Your task to perform on an android device: turn on wifi Image 0: 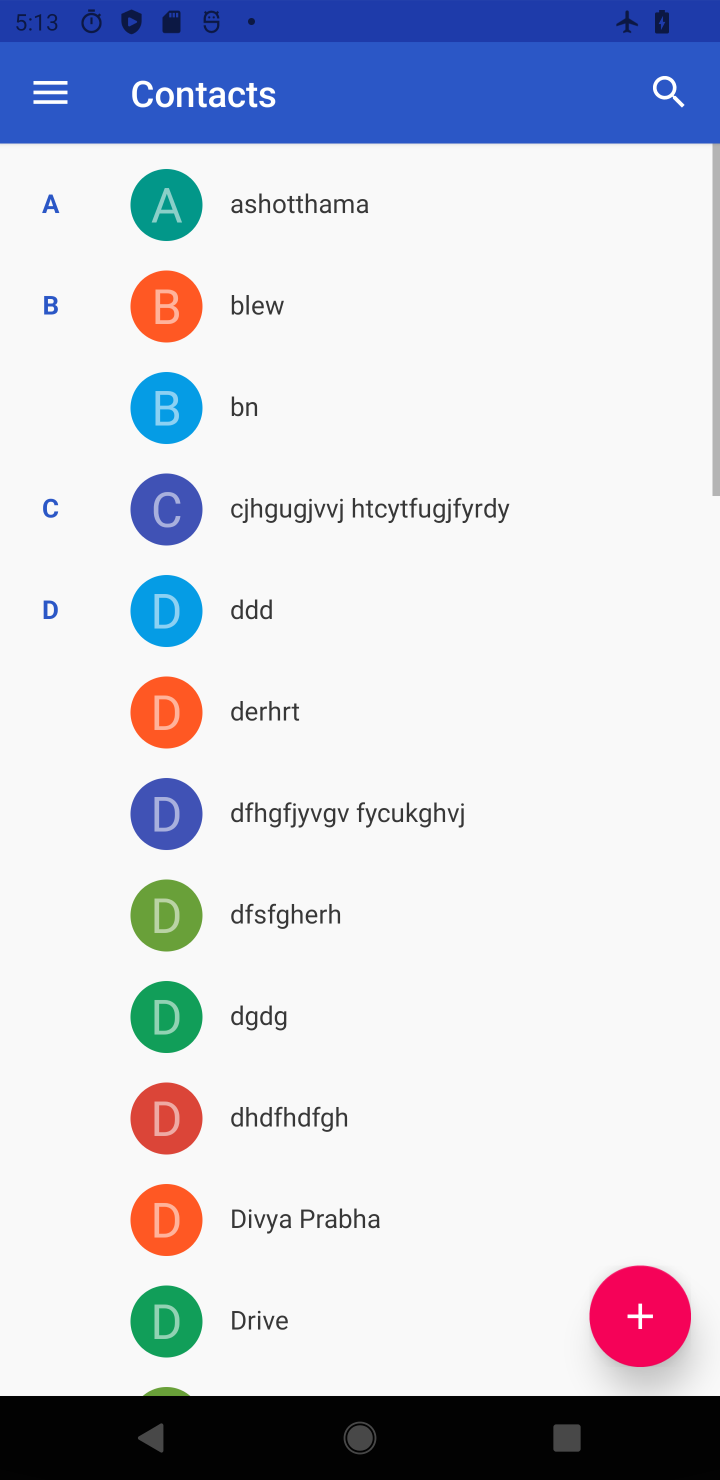
Step 0: press back button
Your task to perform on an android device: turn on wifi Image 1: 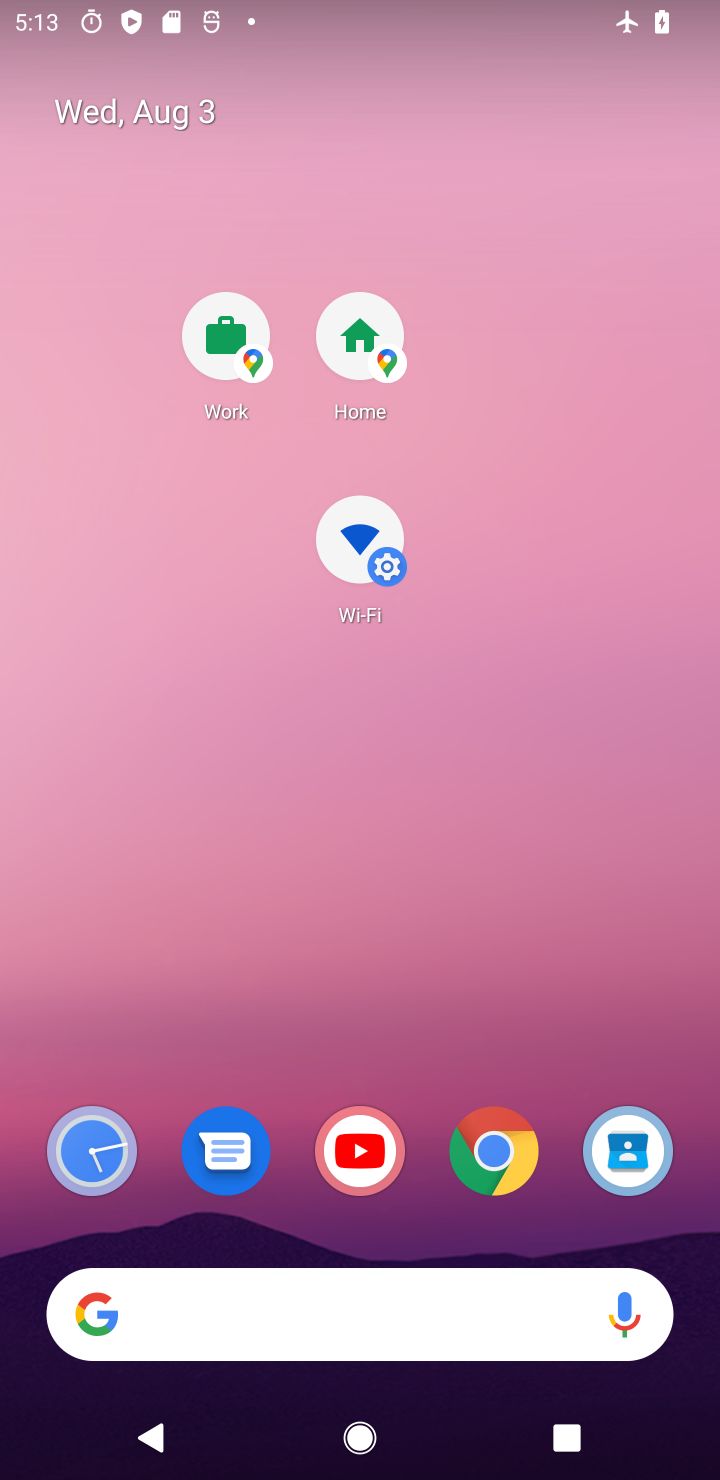
Step 1: drag from (421, 1236) to (162, 320)
Your task to perform on an android device: turn on wifi Image 2: 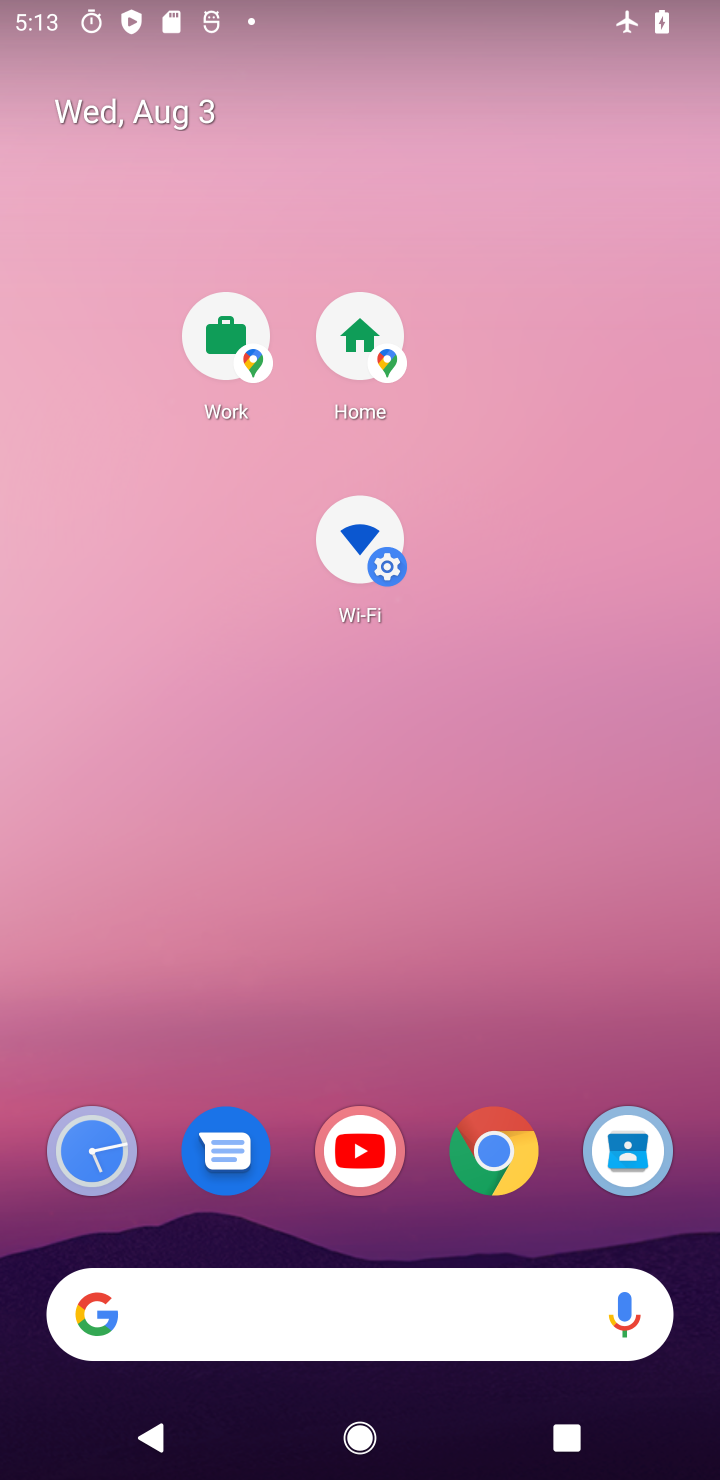
Step 2: drag from (336, 428) to (319, 322)
Your task to perform on an android device: turn on wifi Image 3: 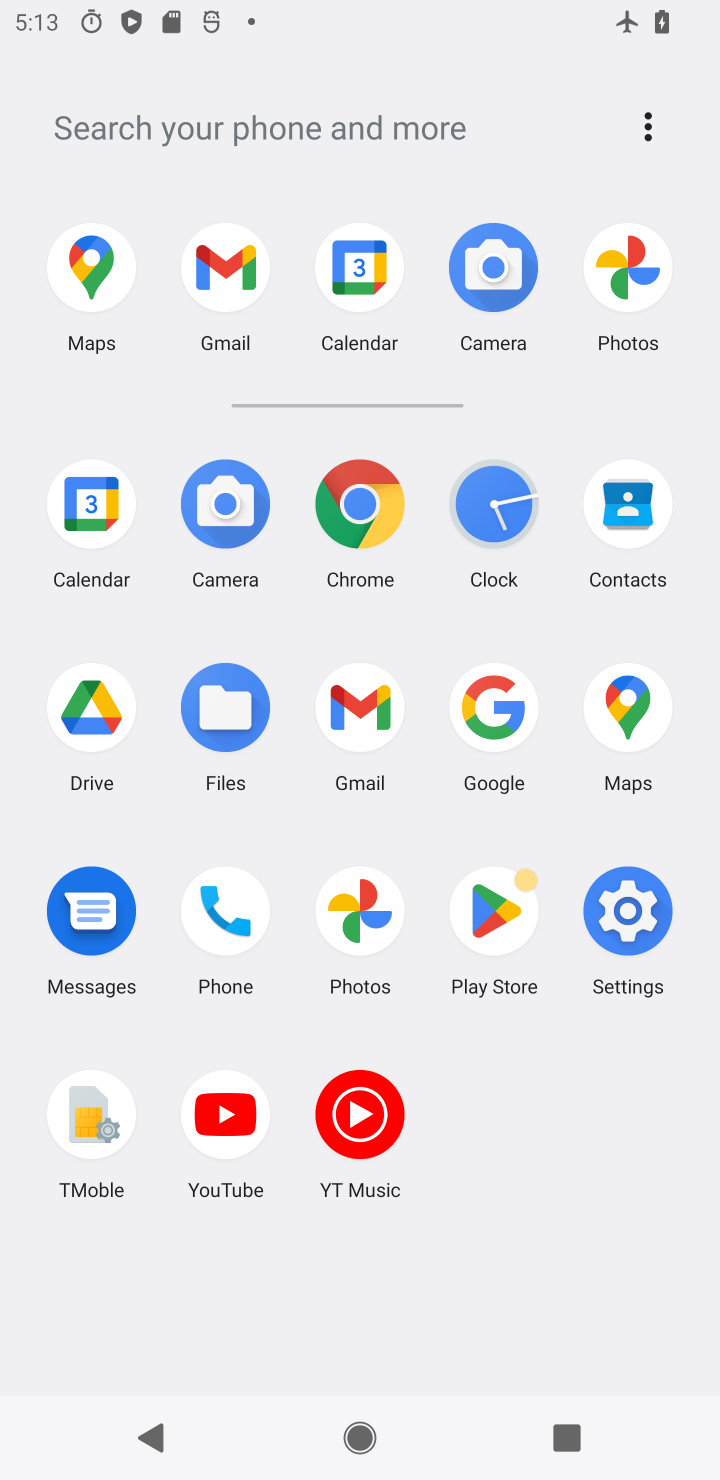
Step 3: click (592, 914)
Your task to perform on an android device: turn on wifi Image 4: 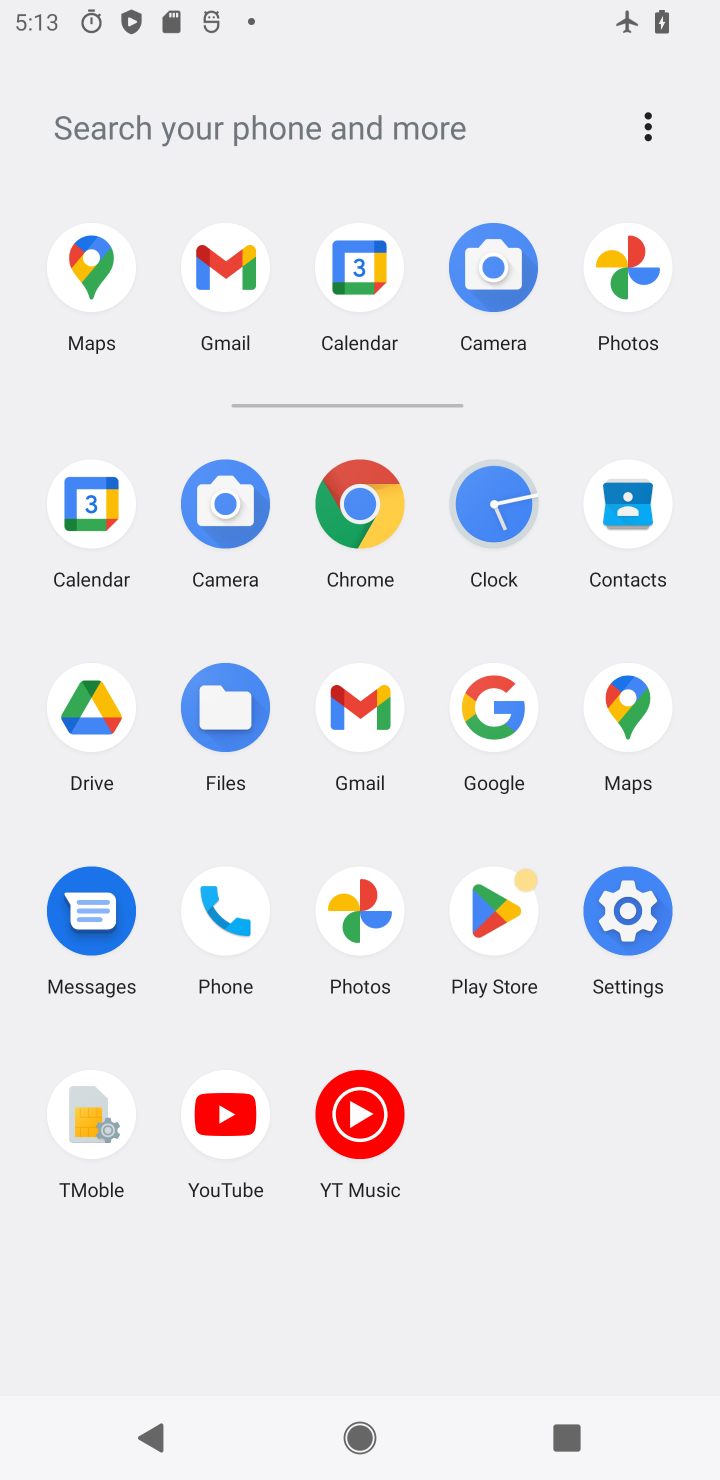
Step 4: click (612, 933)
Your task to perform on an android device: turn on wifi Image 5: 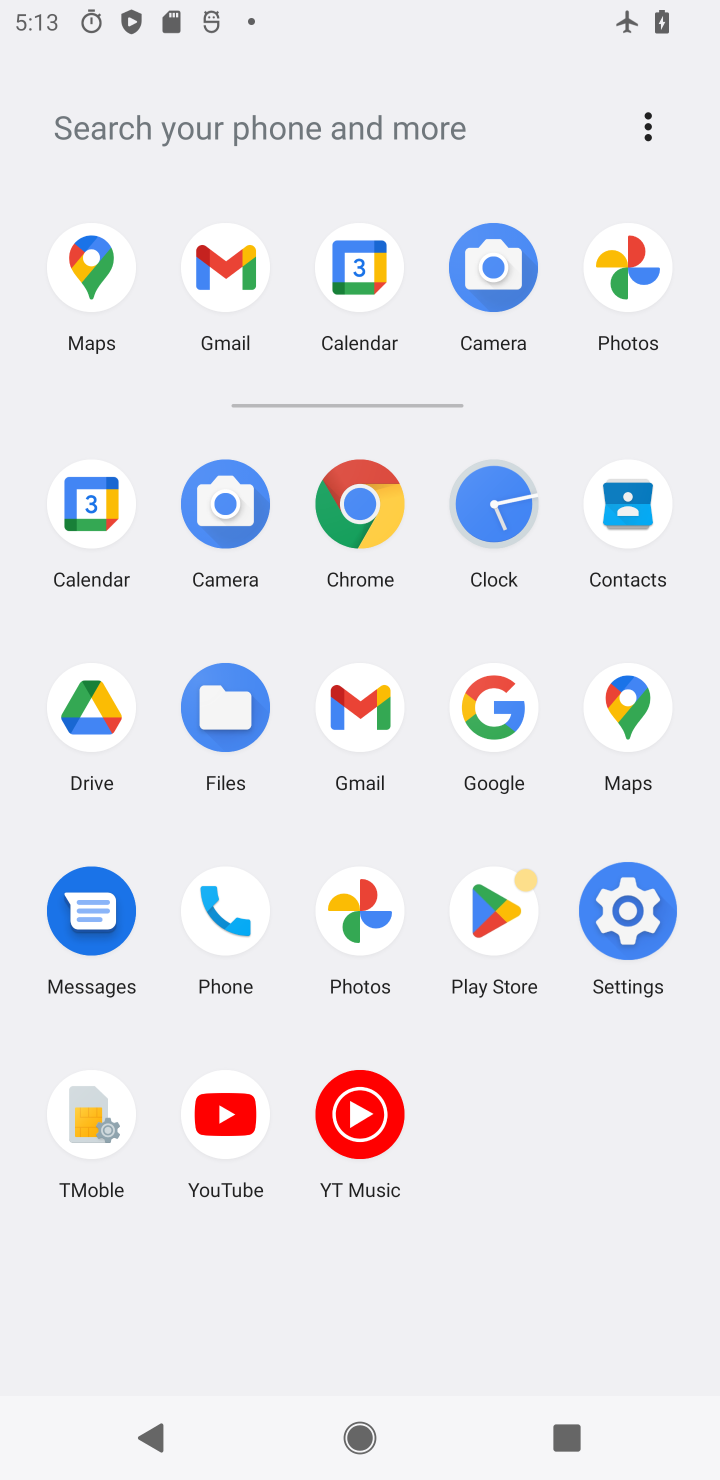
Step 5: click (620, 929)
Your task to perform on an android device: turn on wifi Image 6: 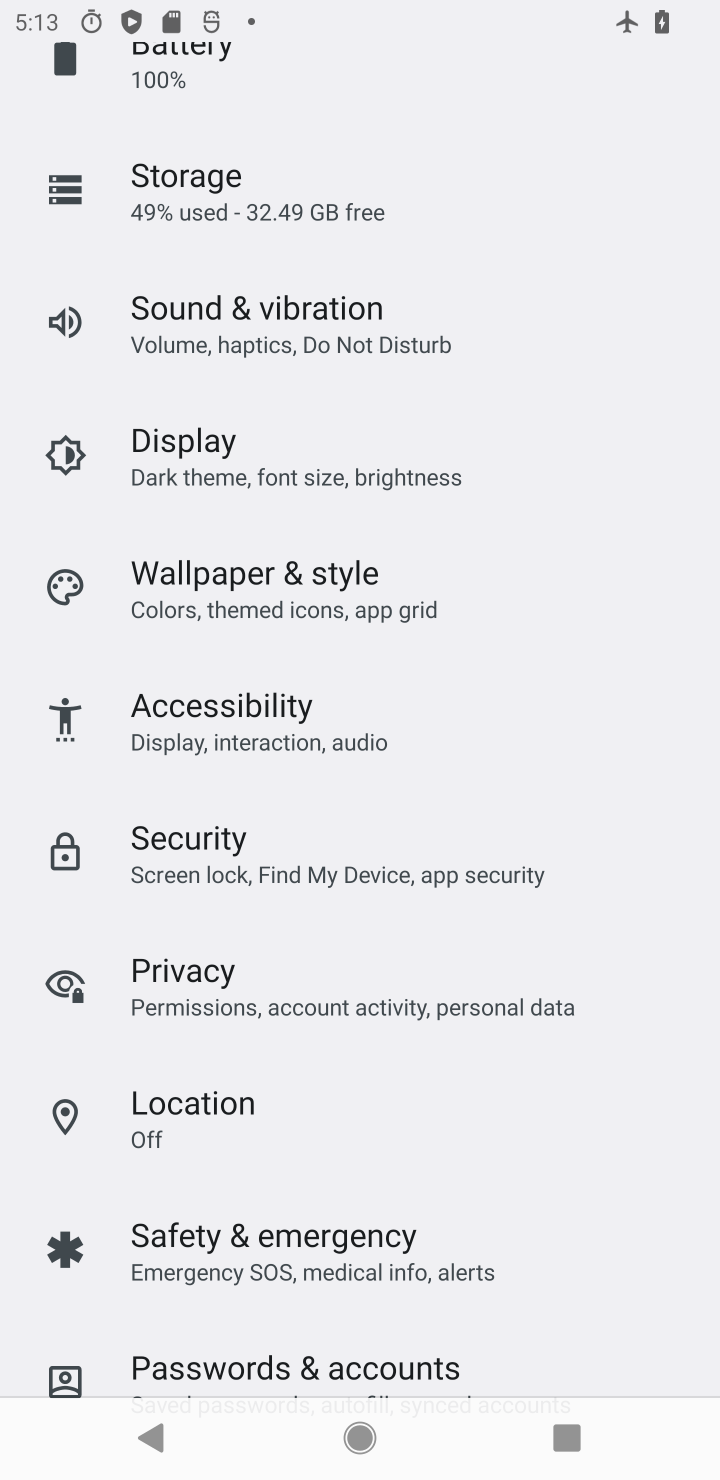
Step 6: drag from (282, 220) to (285, 1029)
Your task to perform on an android device: turn on wifi Image 7: 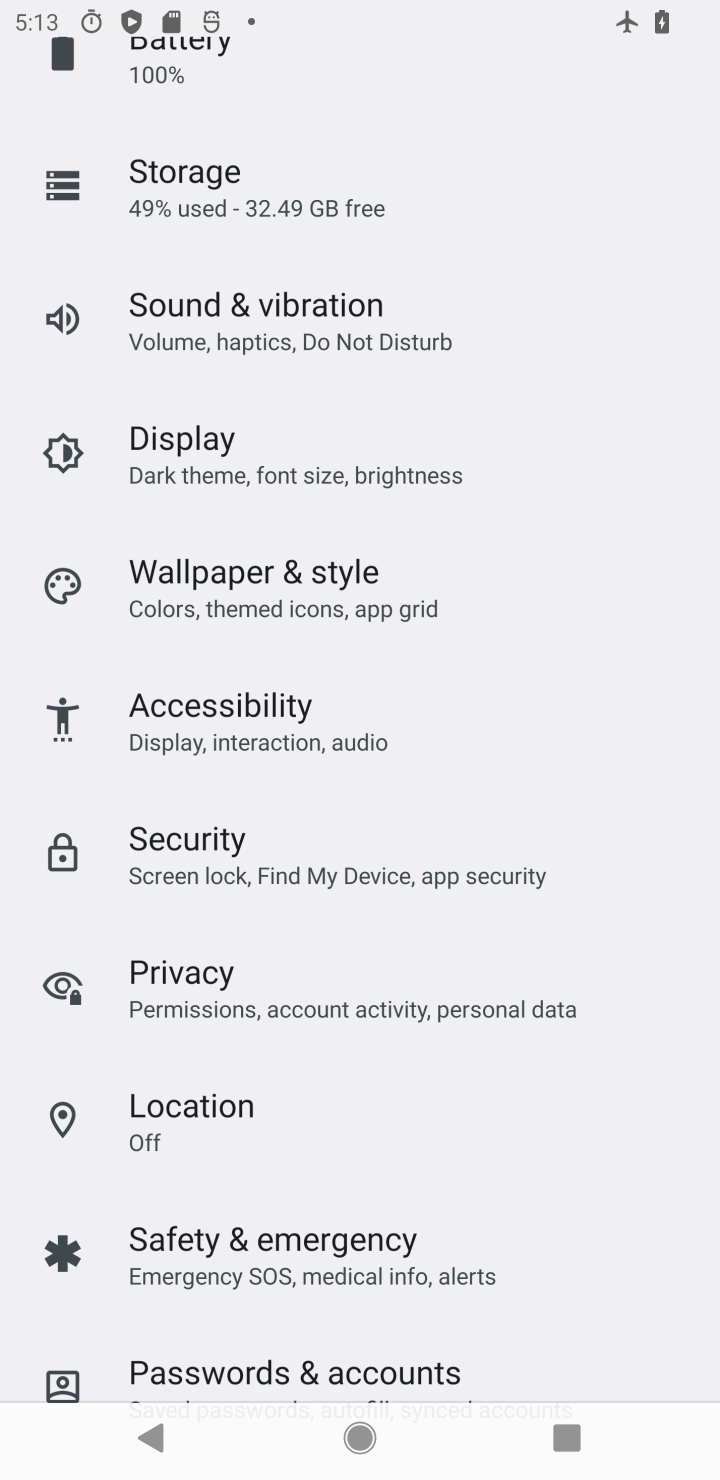
Step 7: drag from (363, 1055) to (400, 1215)
Your task to perform on an android device: turn on wifi Image 8: 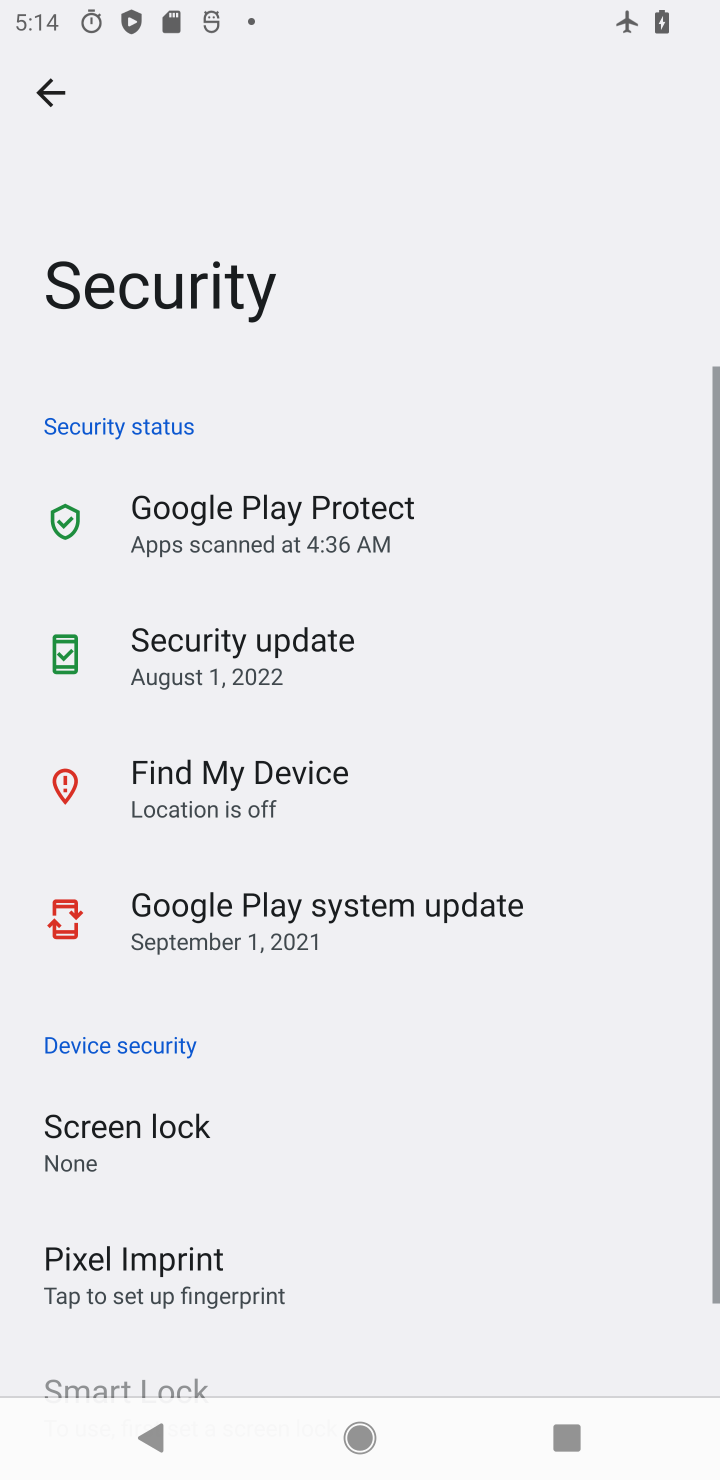
Step 8: click (432, 913)
Your task to perform on an android device: turn on wifi Image 9: 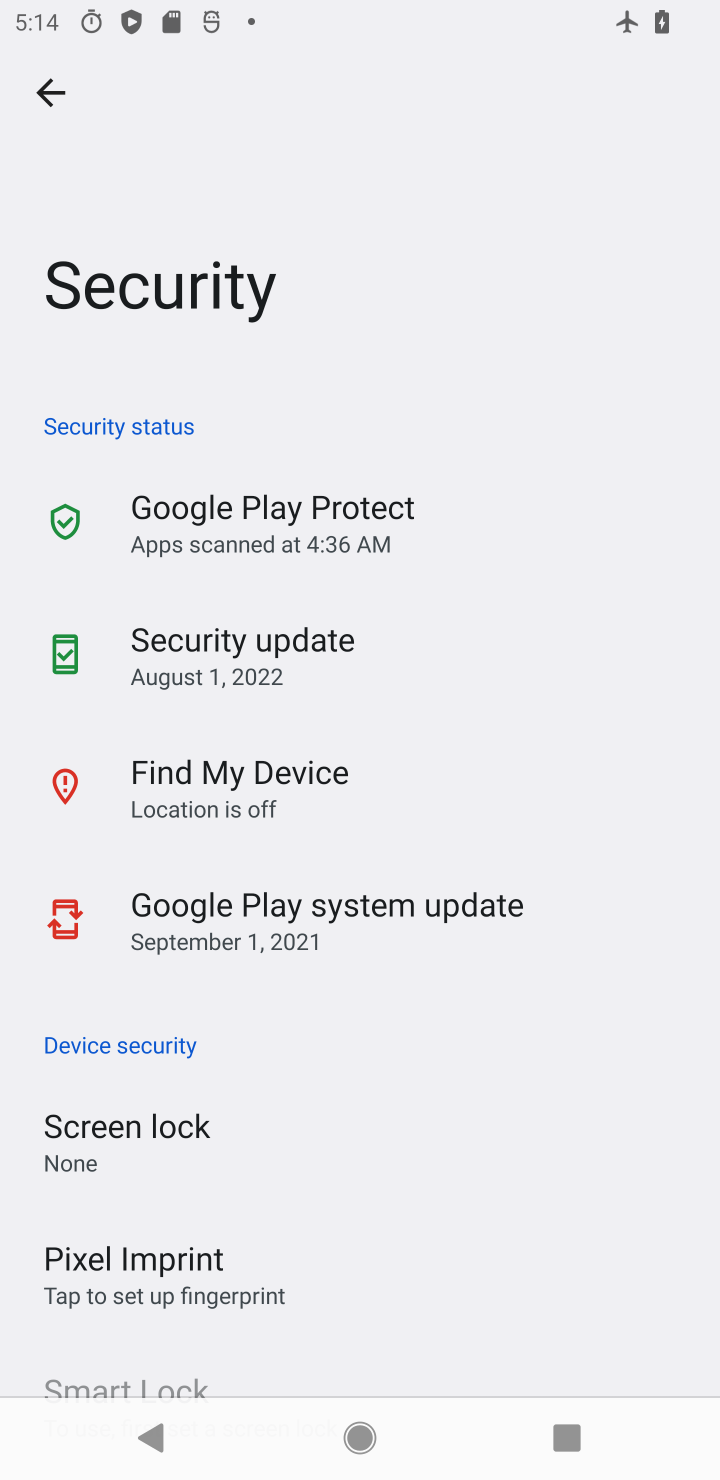
Step 9: click (46, 91)
Your task to perform on an android device: turn on wifi Image 10: 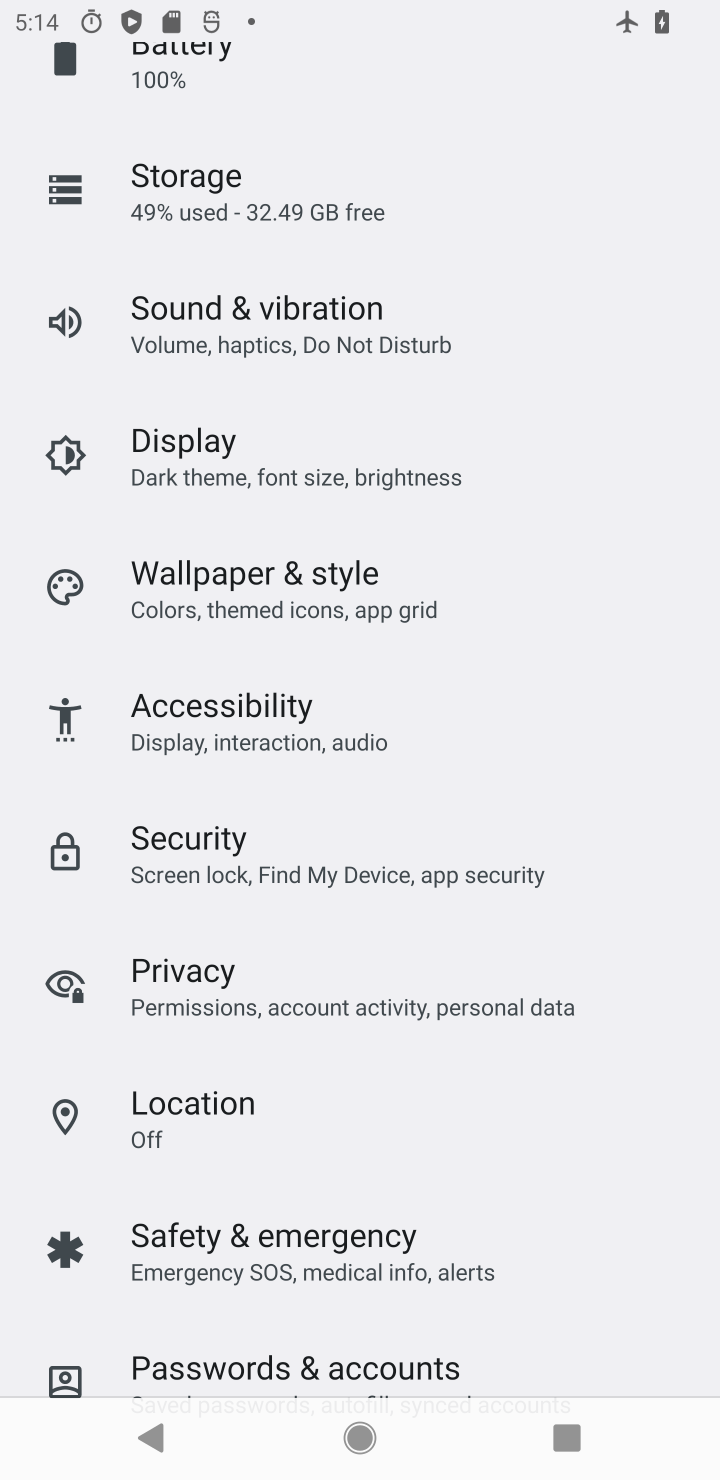
Step 10: drag from (170, 317) to (456, 1076)
Your task to perform on an android device: turn on wifi Image 11: 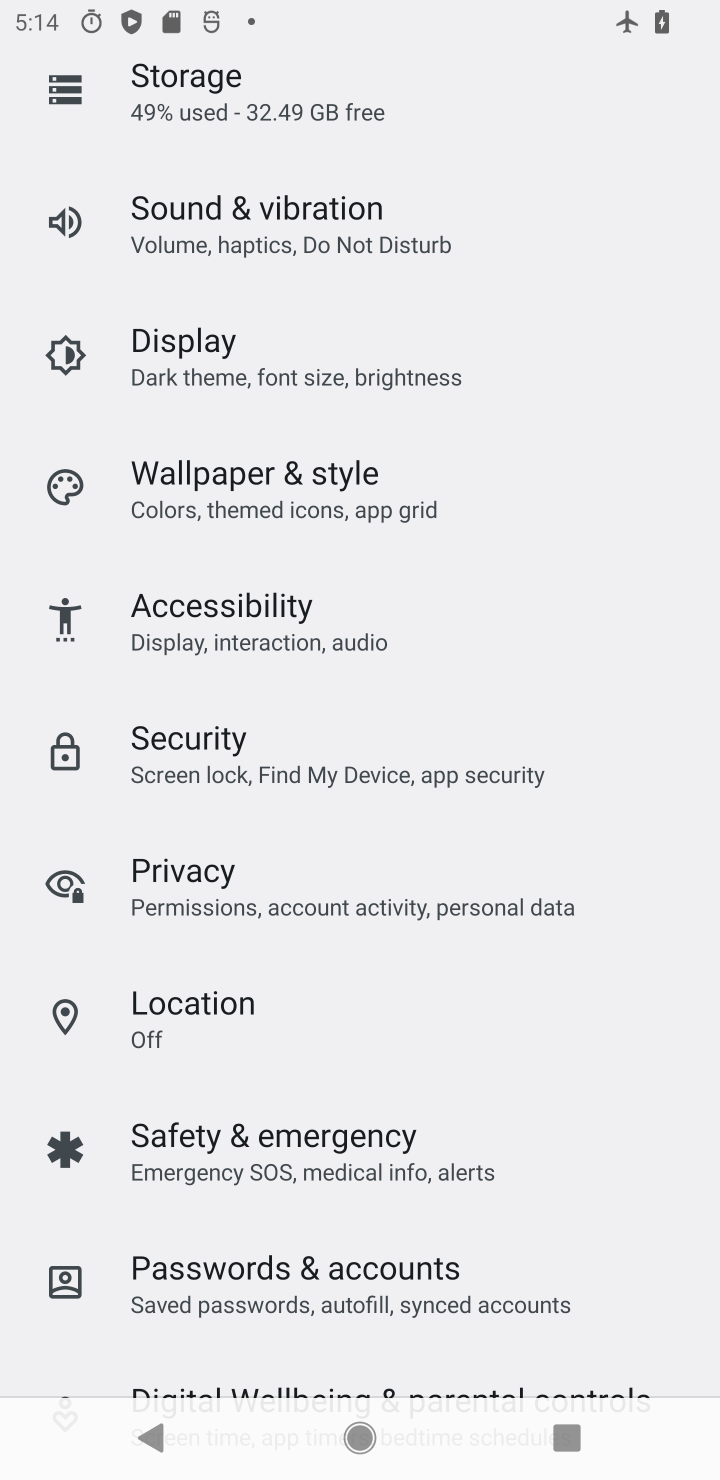
Step 11: drag from (278, 582) to (326, 1116)
Your task to perform on an android device: turn on wifi Image 12: 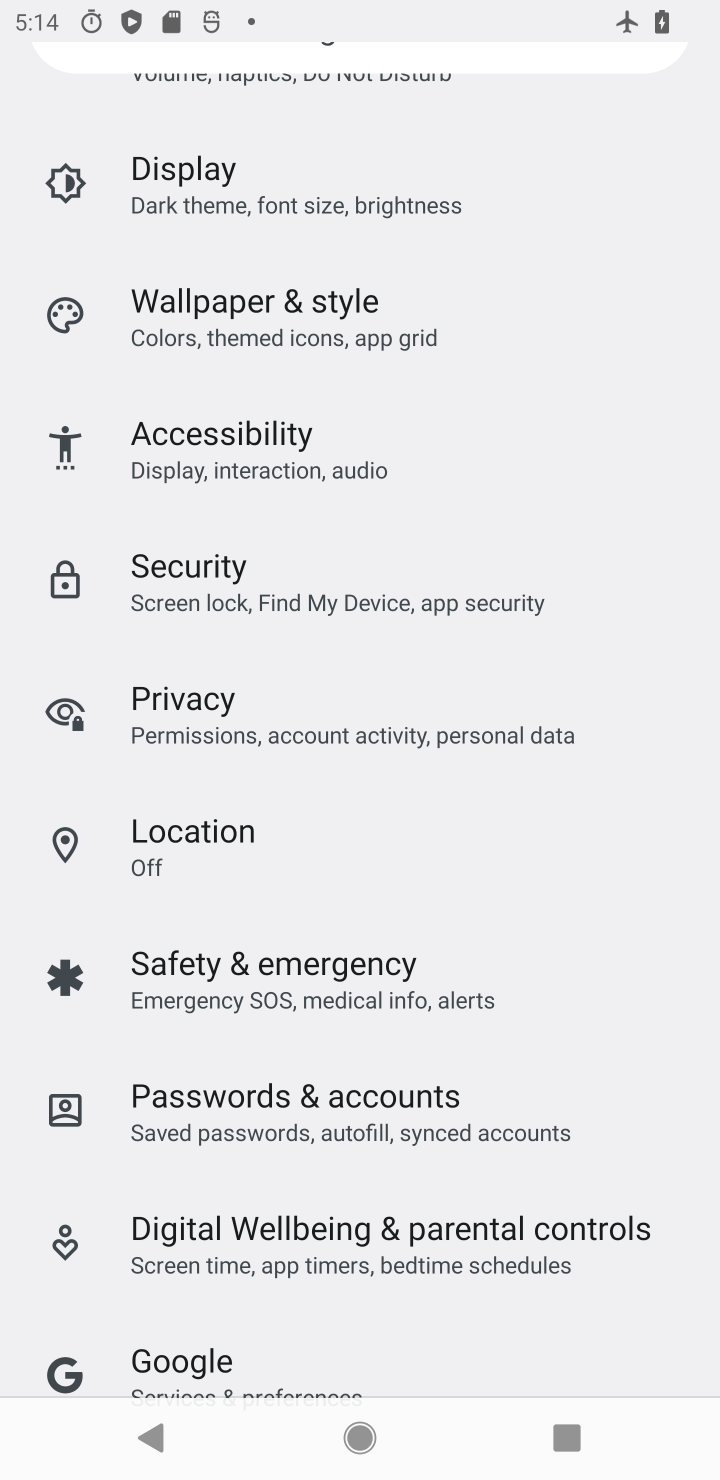
Step 12: drag from (224, 791) to (262, 1133)
Your task to perform on an android device: turn on wifi Image 13: 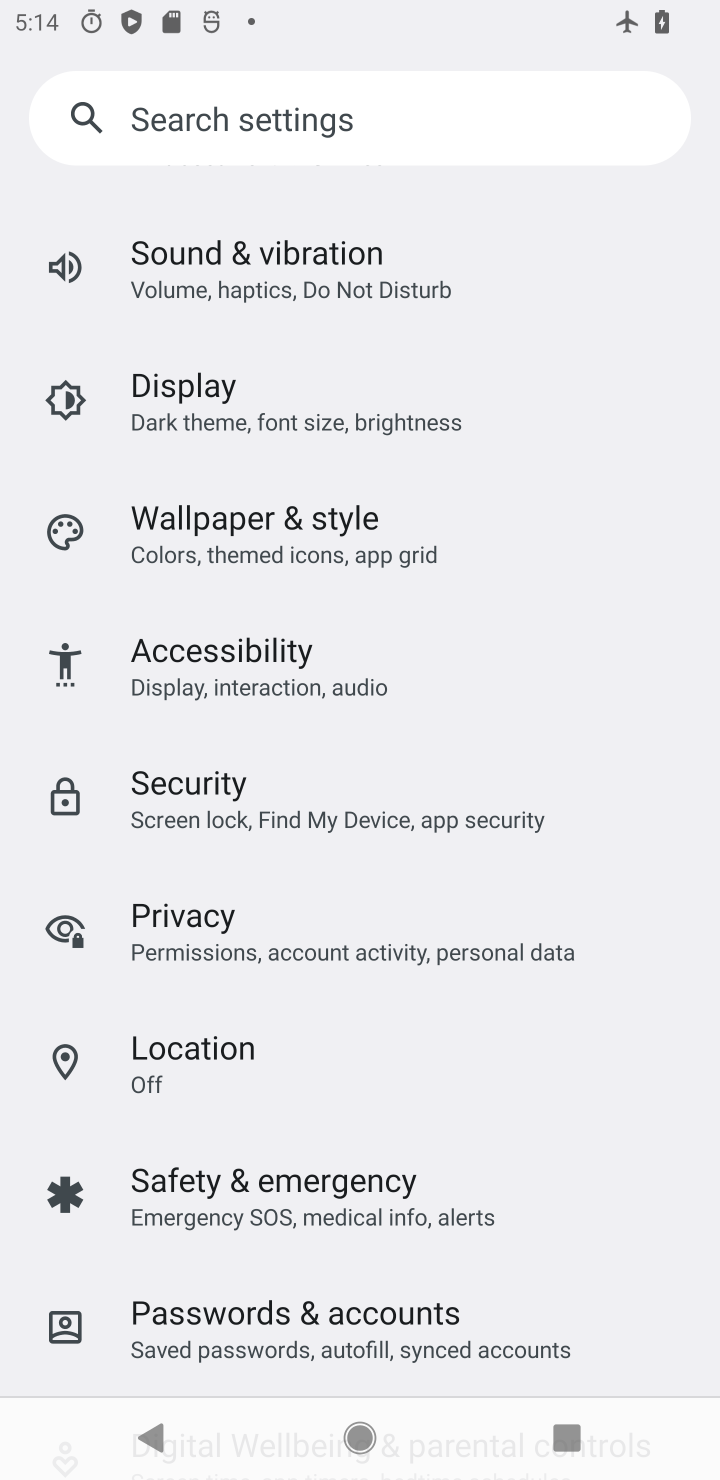
Step 13: click (309, 1093)
Your task to perform on an android device: turn on wifi Image 14: 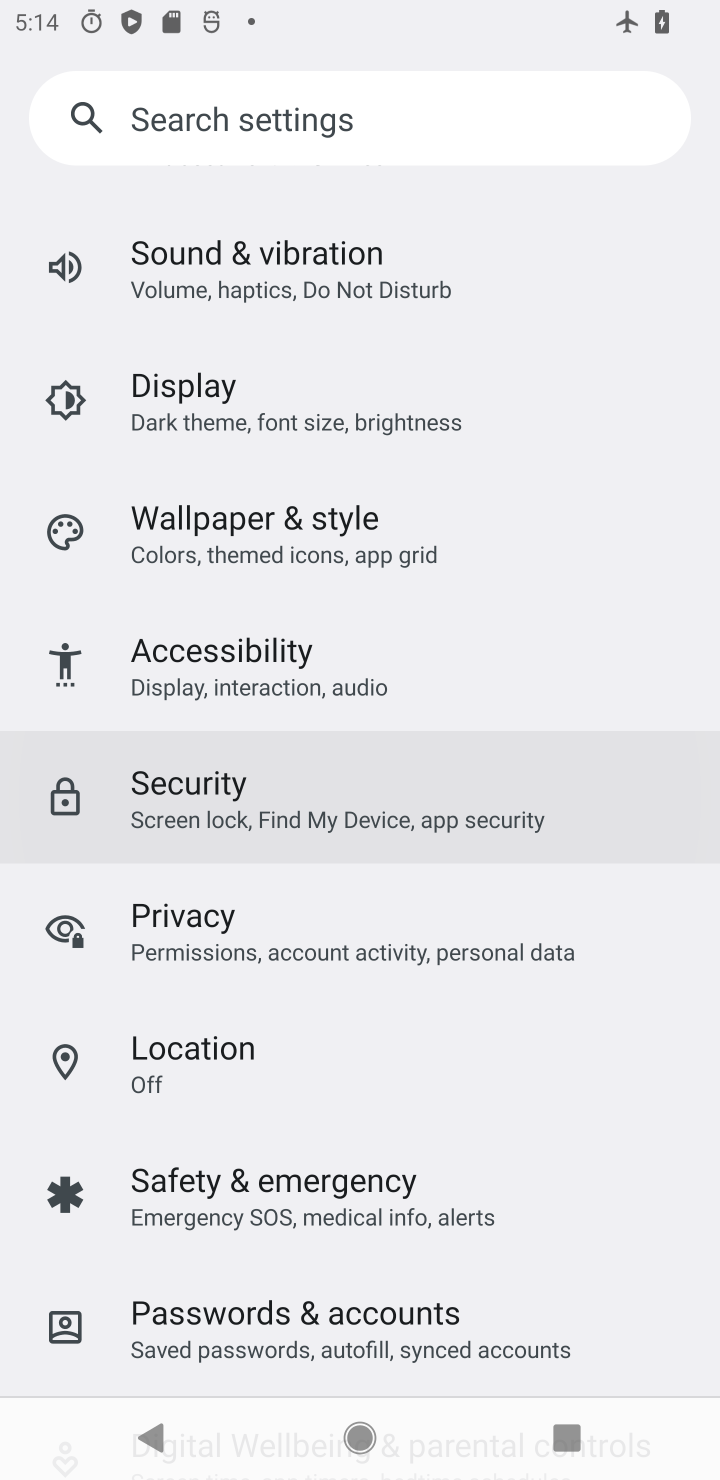
Step 14: click (371, 1054)
Your task to perform on an android device: turn on wifi Image 15: 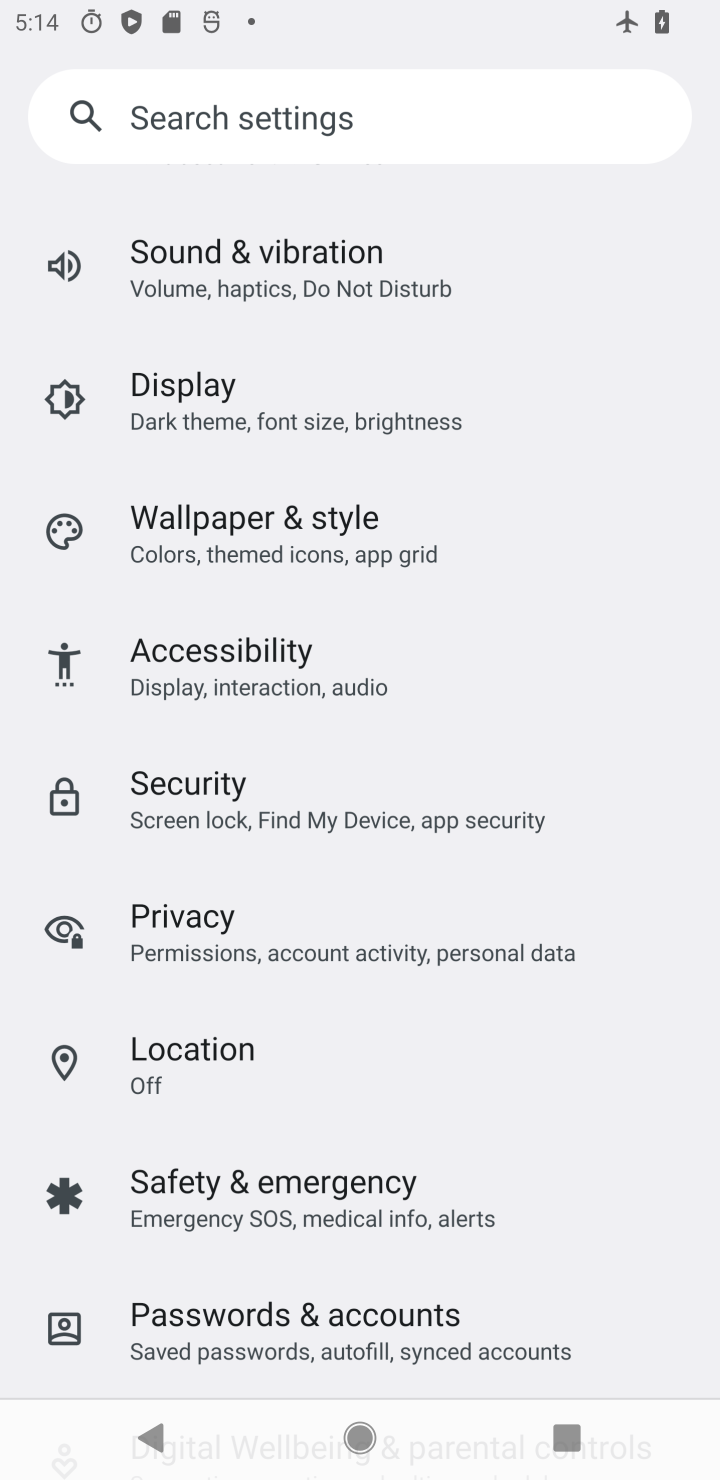
Step 15: drag from (274, 316) to (341, 1084)
Your task to perform on an android device: turn on wifi Image 16: 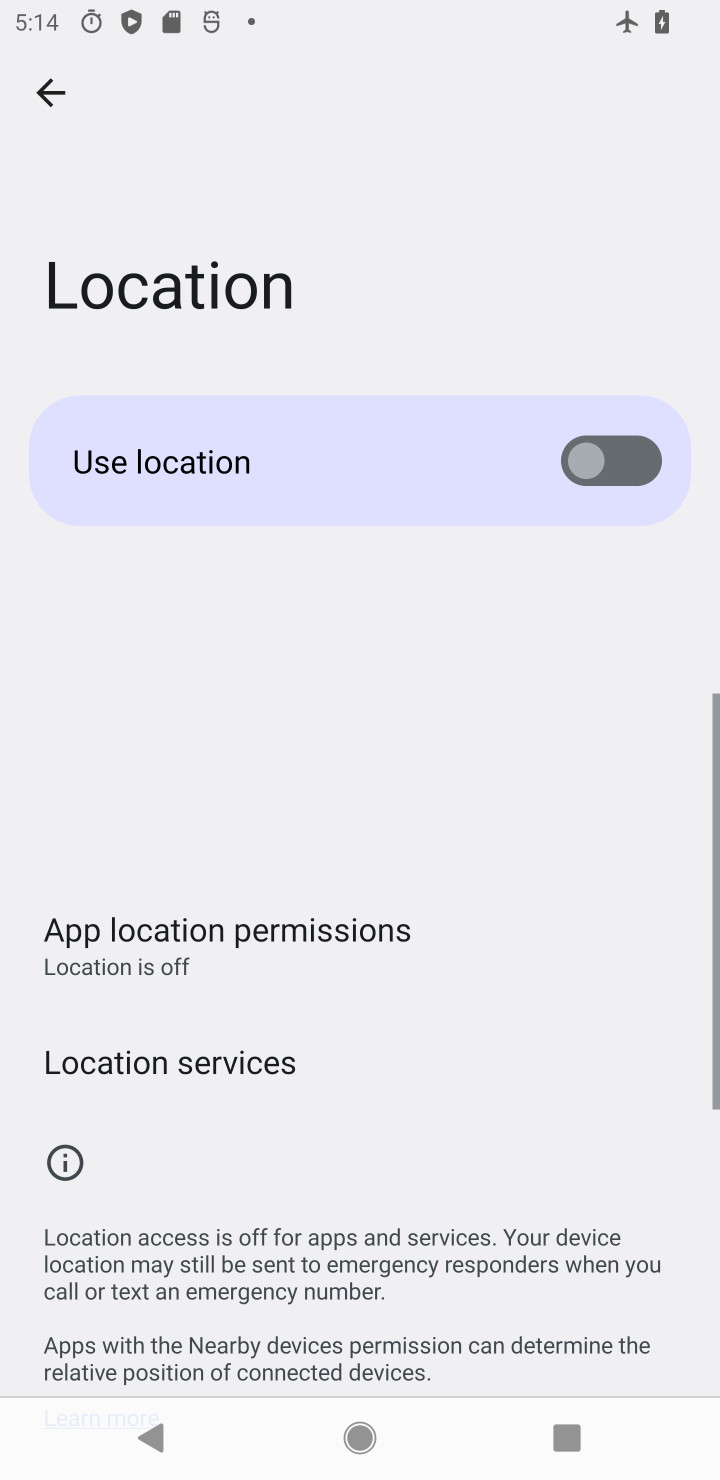
Step 16: drag from (280, 409) to (374, 1045)
Your task to perform on an android device: turn on wifi Image 17: 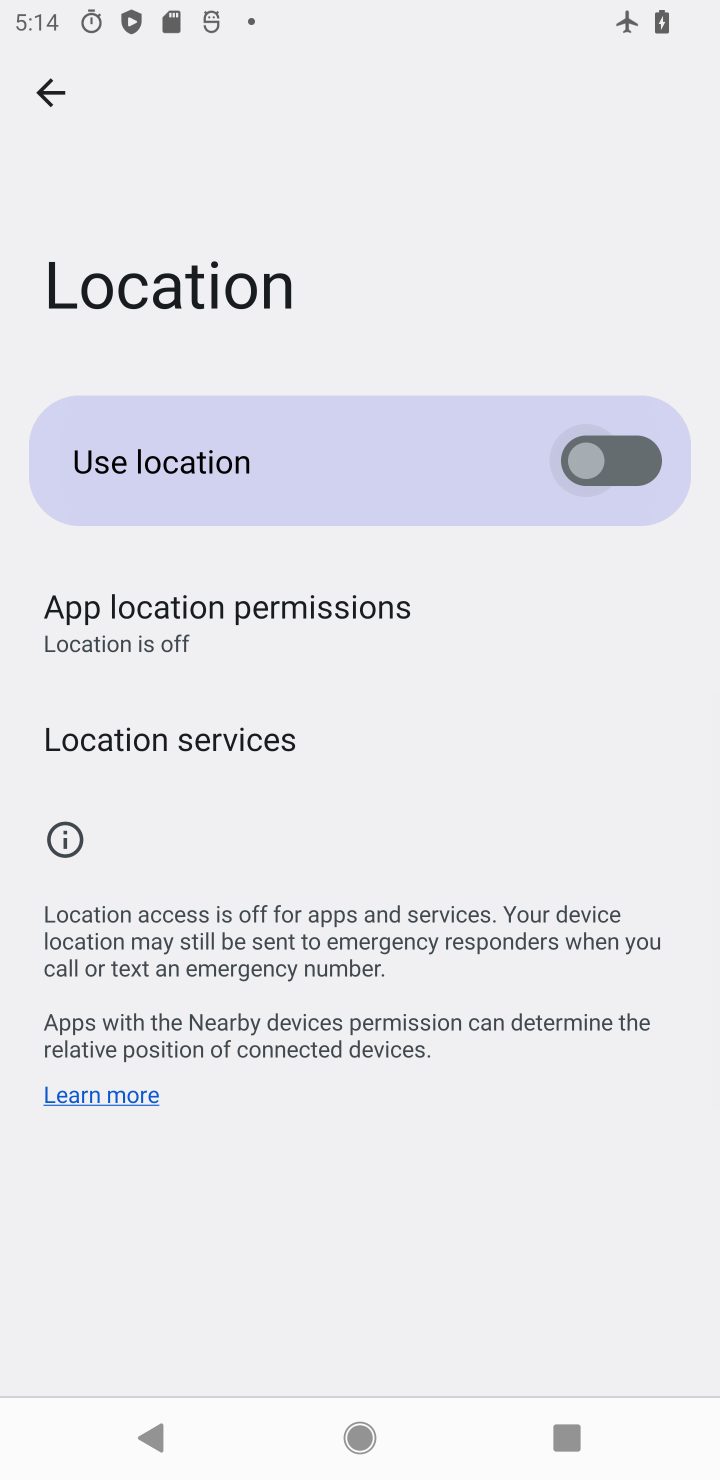
Step 17: click (39, 95)
Your task to perform on an android device: turn on wifi Image 18: 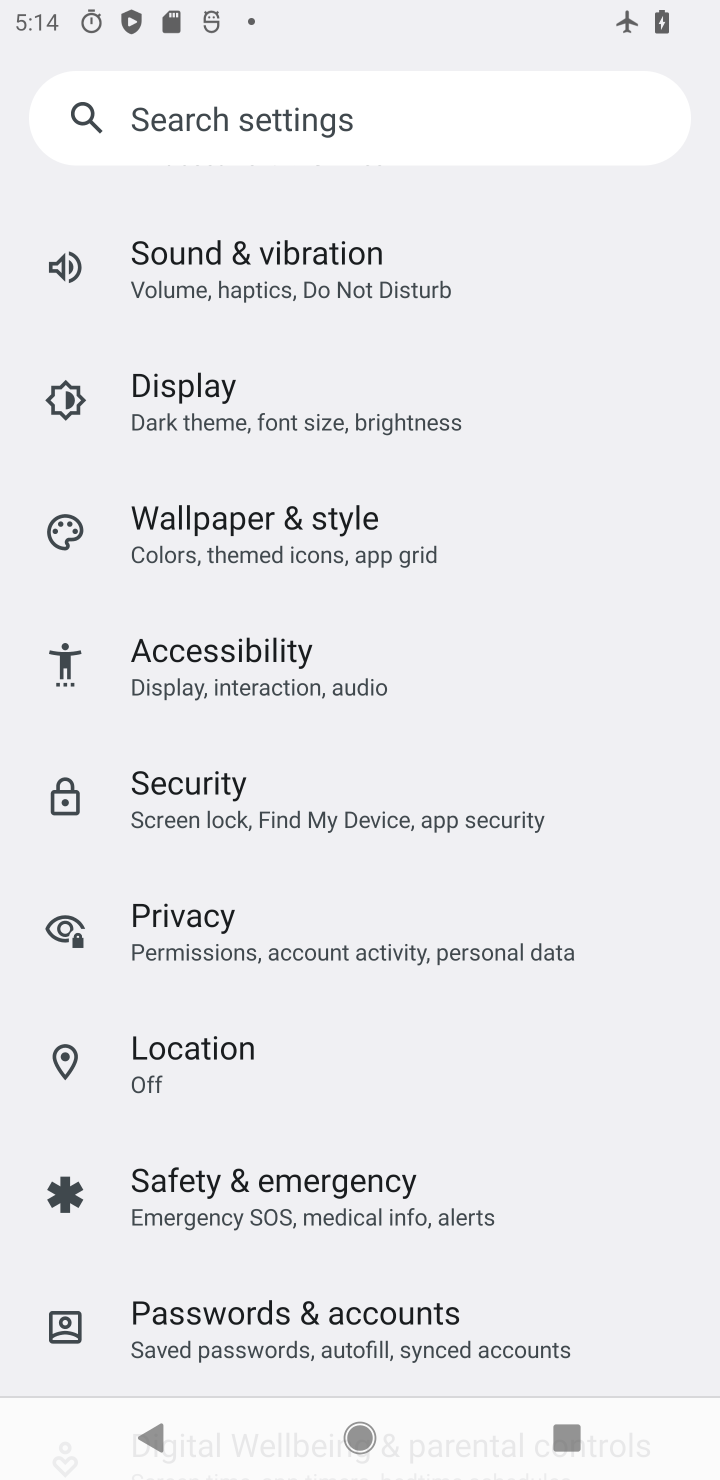
Step 18: drag from (308, 286) to (340, 1006)
Your task to perform on an android device: turn on wifi Image 19: 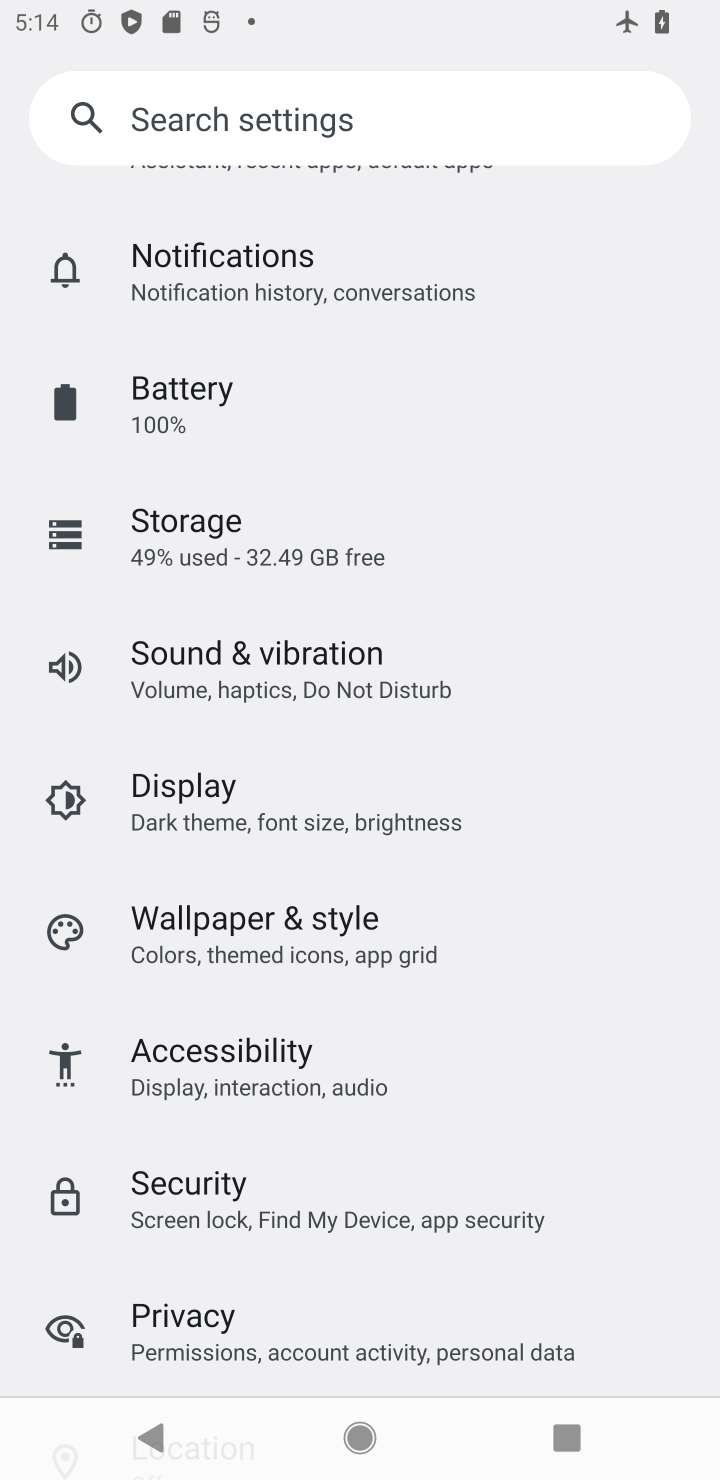
Step 19: drag from (179, 293) to (280, 1256)
Your task to perform on an android device: turn on wifi Image 20: 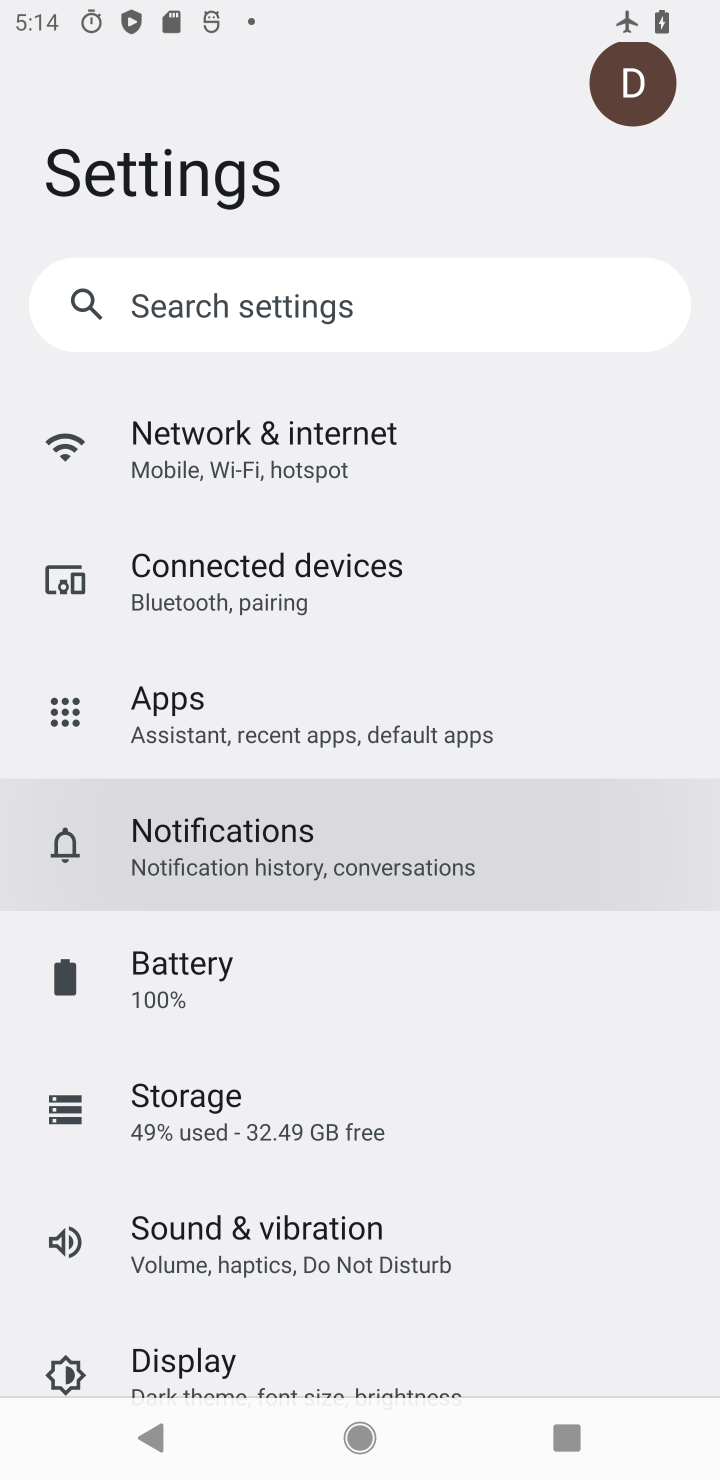
Step 20: drag from (257, 413) to (419, 1193)
Your task to perform on an android device: turn on wifi Image 21: 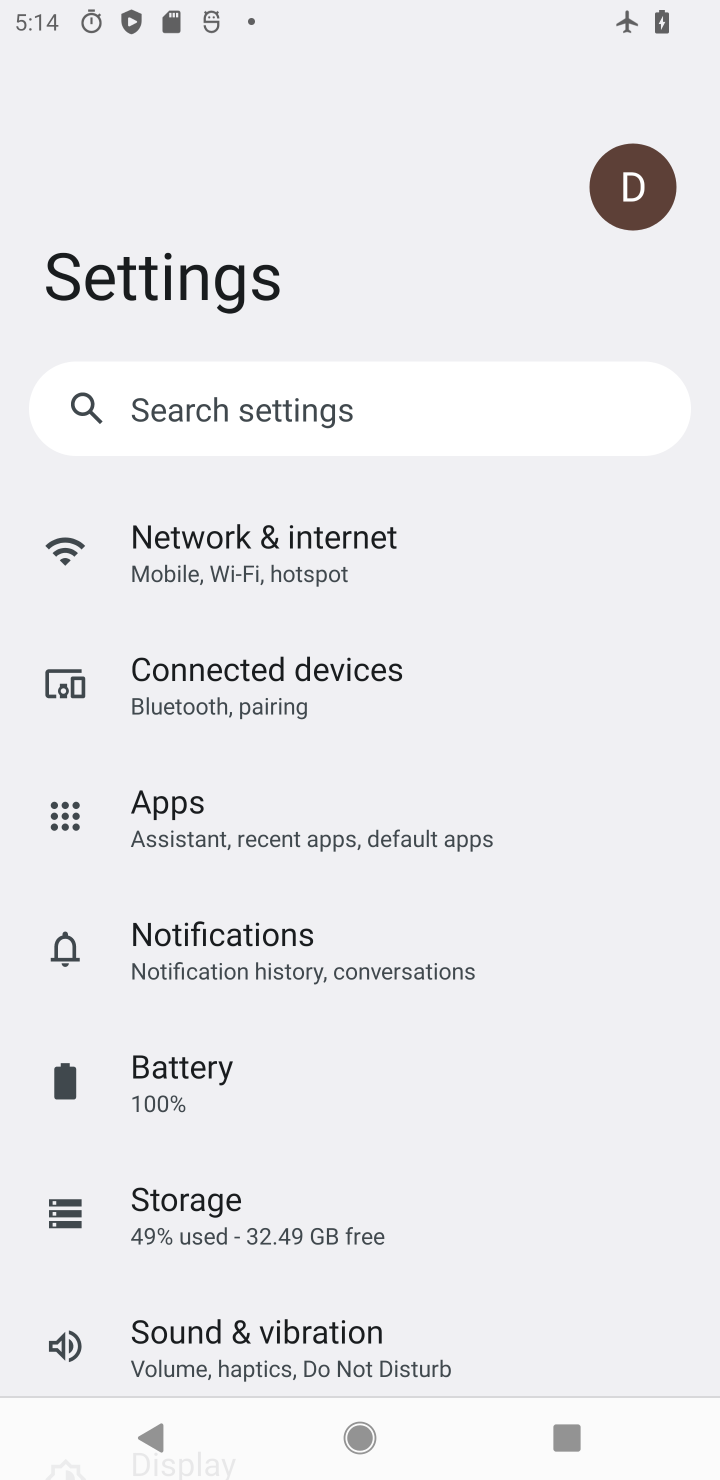
Step 21: click (183, 569)
Your task to perform on an android device: turn on wifi Image 22: 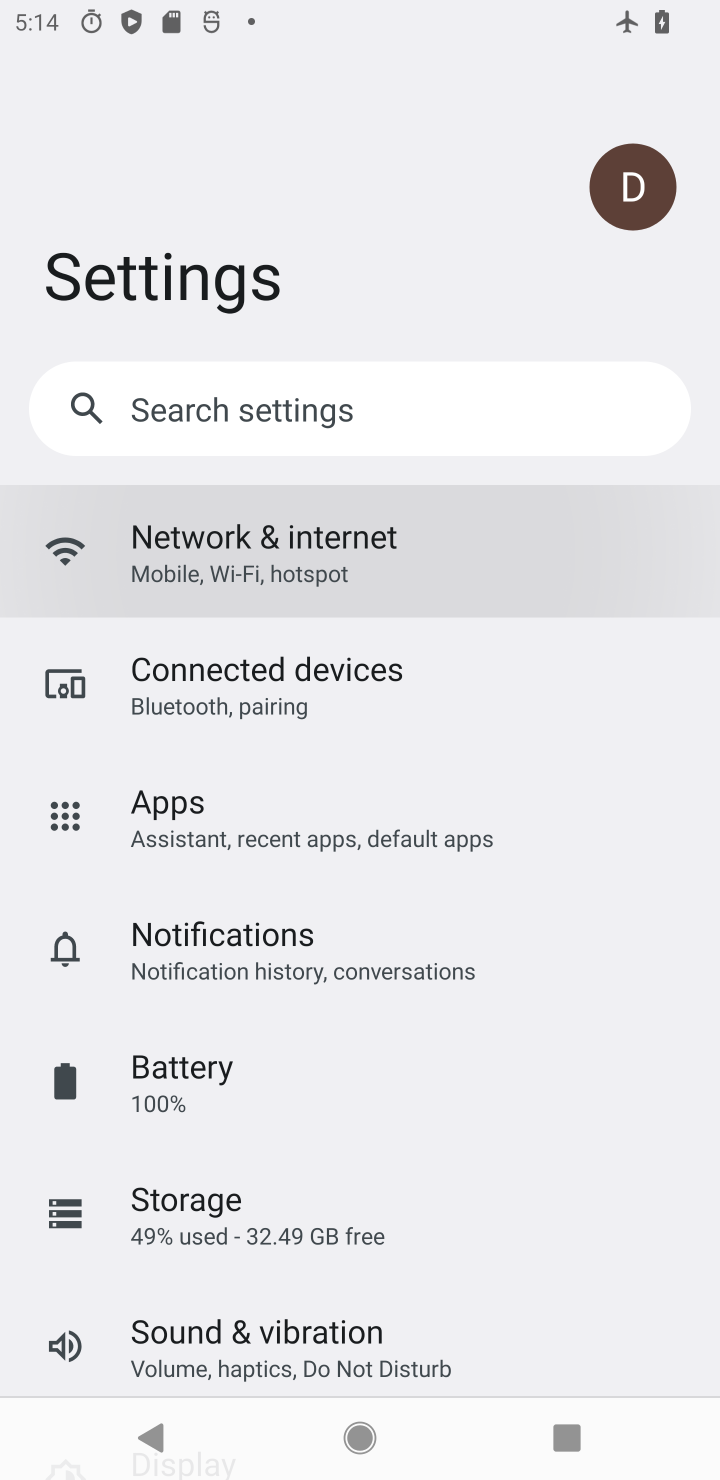
Step 22: click (192, 577)
Your task to perform on an android device: turn on wifi Image 23: 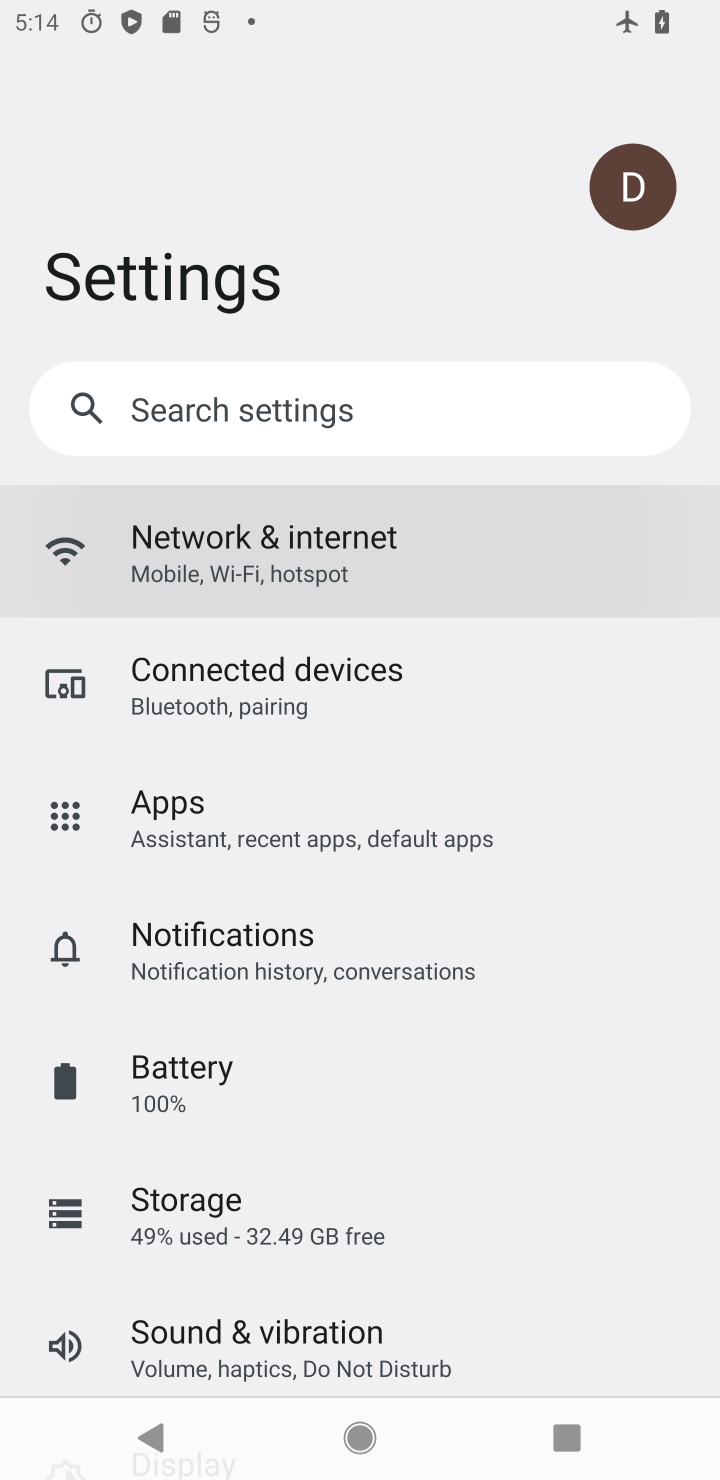
Step 23: click (194, 571)
Your task to perform on an android device: turn on wifi Image 24: 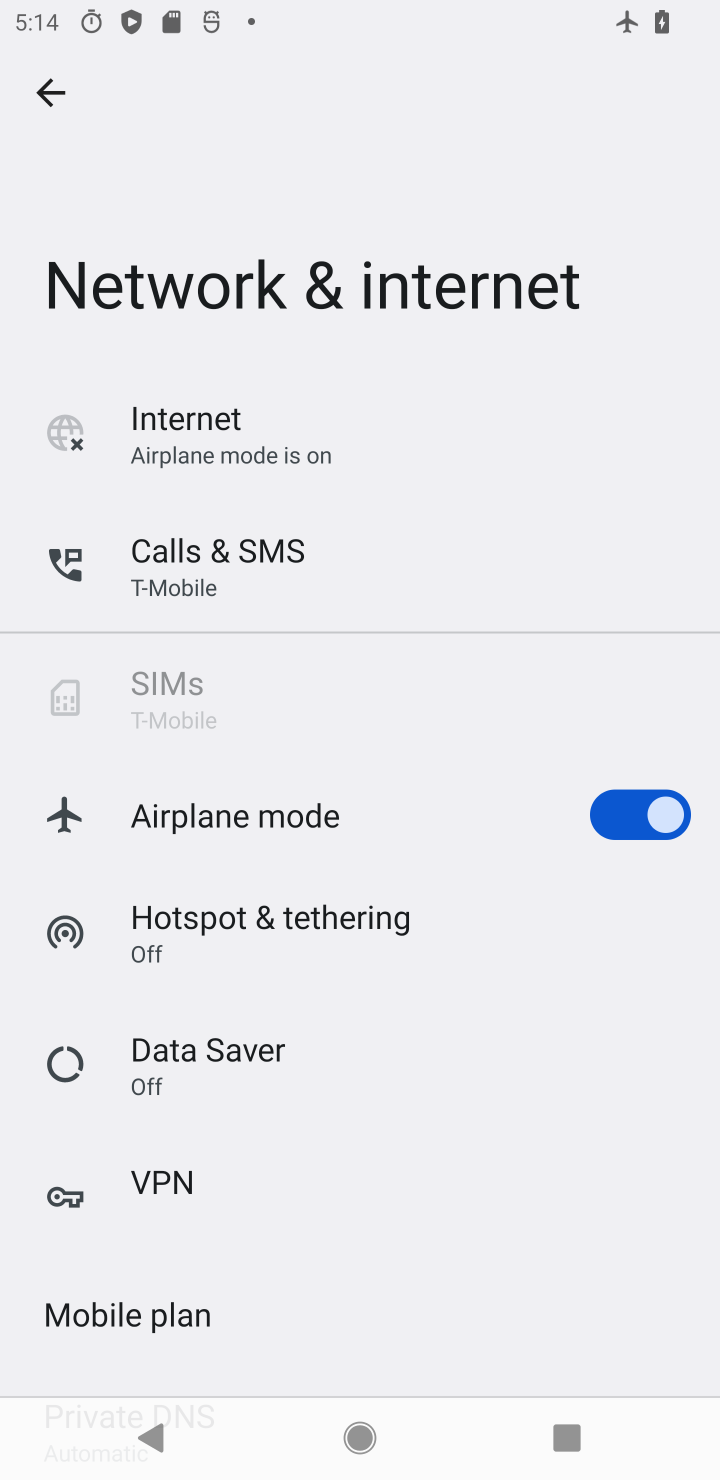
Step 24: click (192, 437)
Your task to perform on an android device: turn on wifi Image 25: 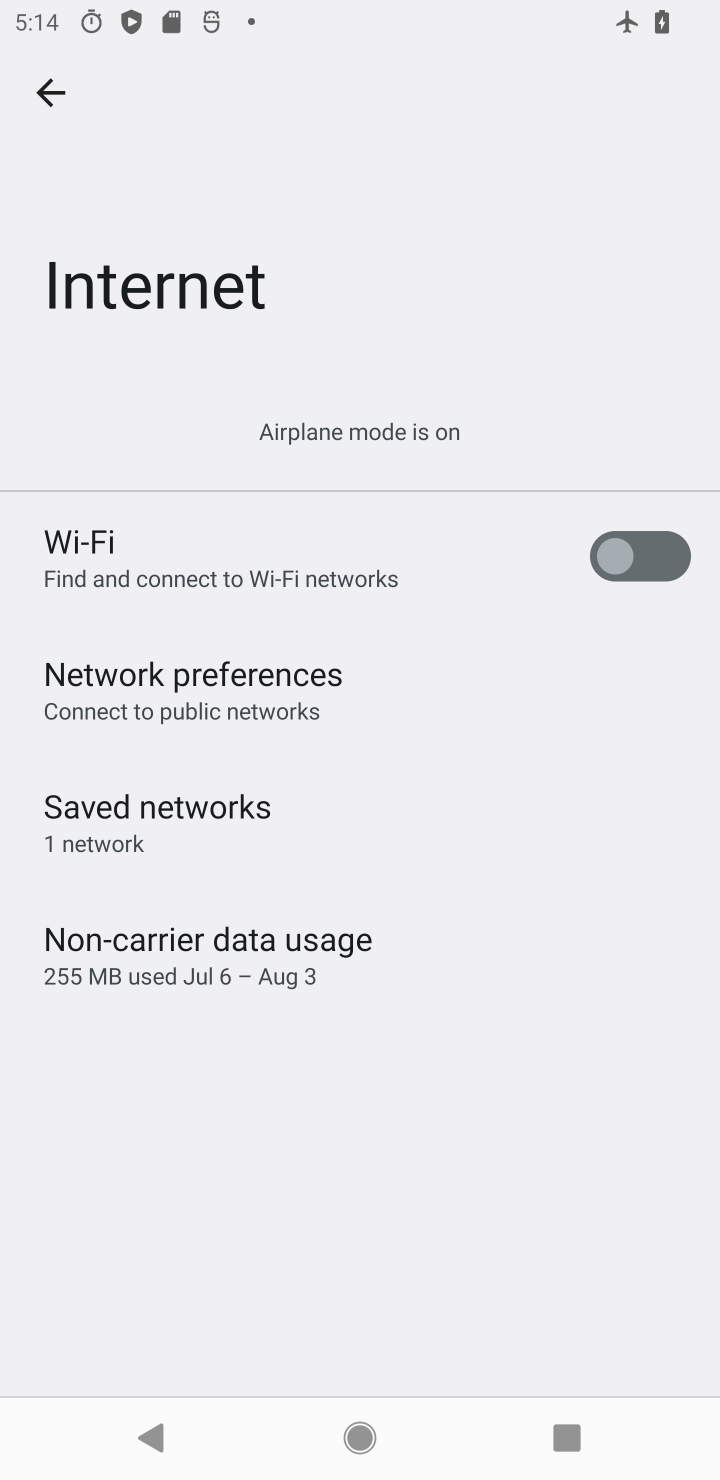
Step 25: click (626, 541)
Your task to perform on an android device: turn on wifi Image 26: 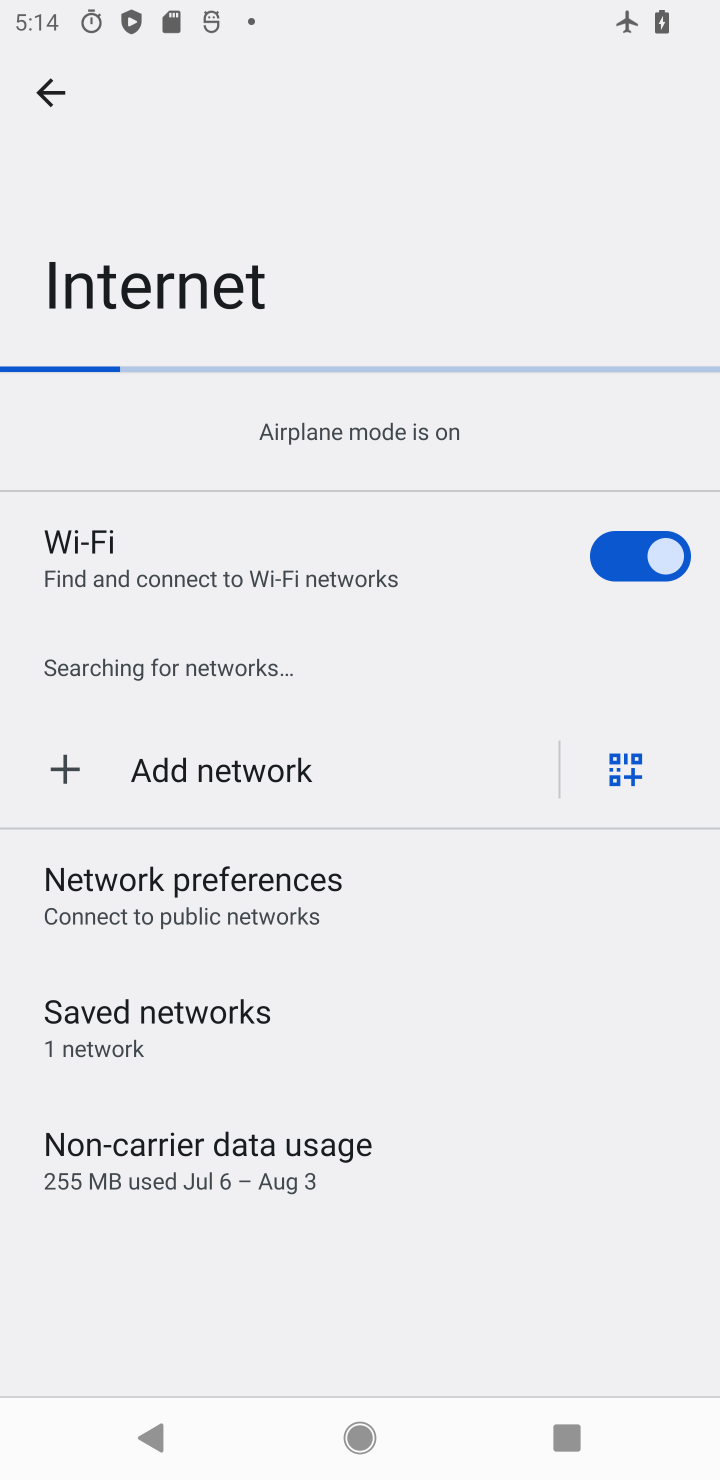
Step 26: click (49, 87)
Your task to perform on an android device: turn on wifi Image 27: 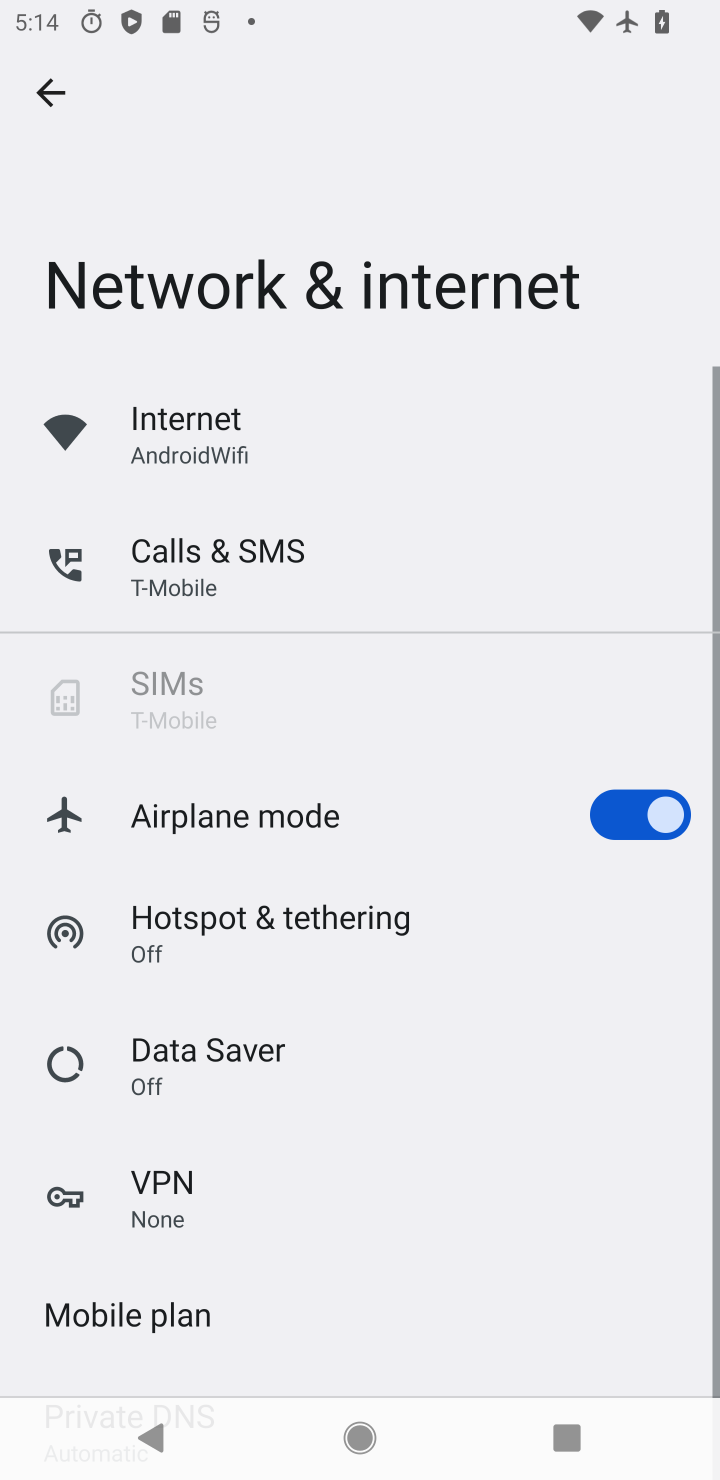
Step 27: click (653, 810)
Your task to perform on an android device: turn on wifi Image 28: 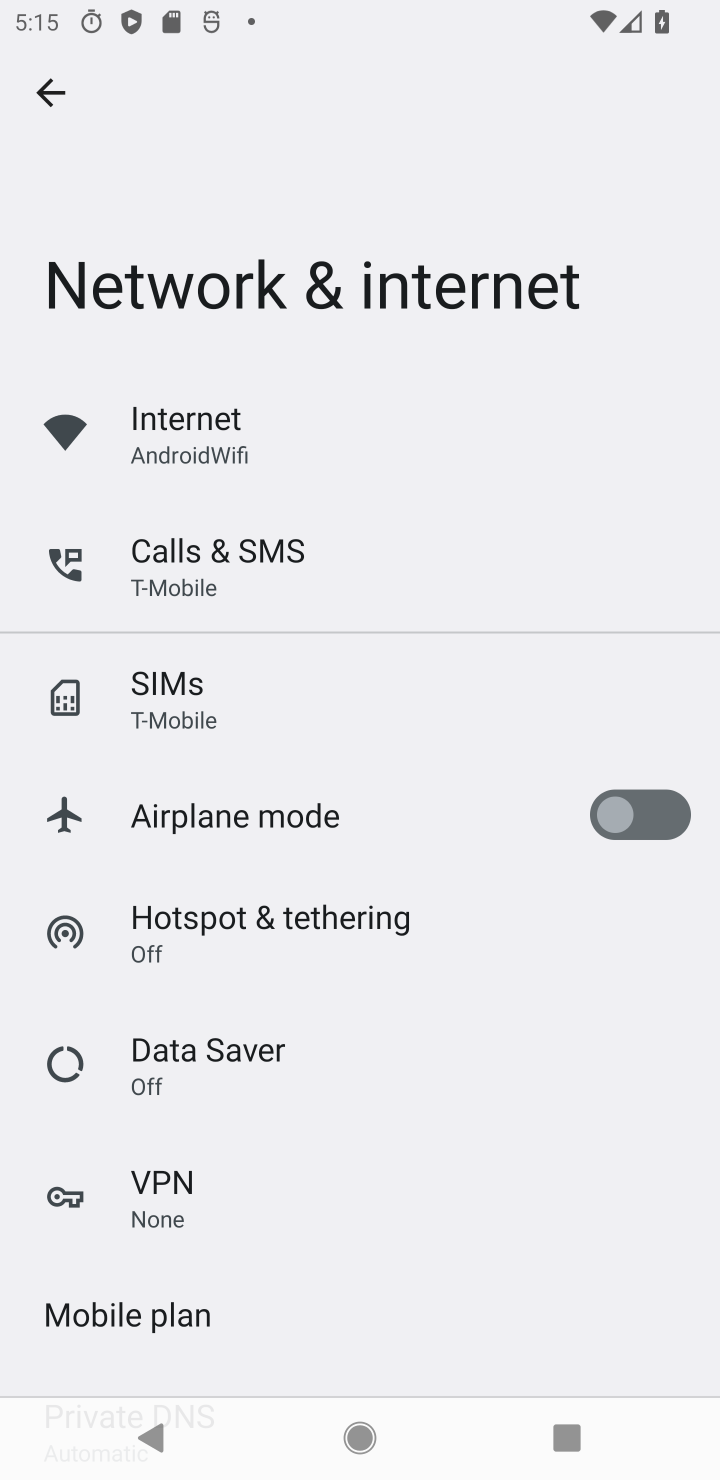
Step 28: task complete